Your task to perform on an android device: Search for macbook pro 15 inch on costco, select the first entry, add it to the cart, then select checkout. Image 0: 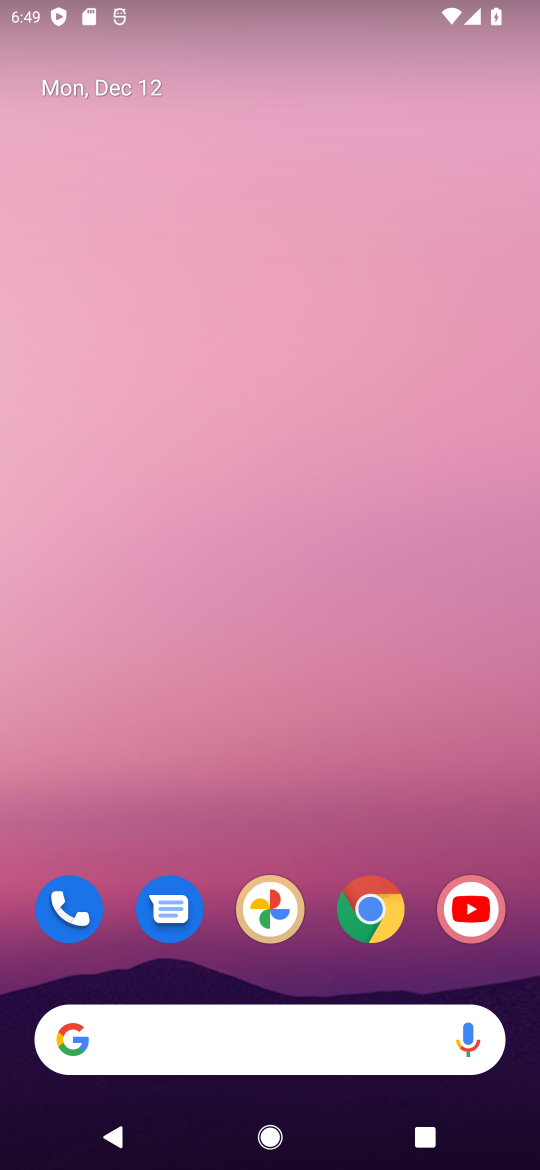
Step 0: click (361, 932)
Your task to perform on an android device: Search for macbook pro 15 inch on costco, select the first entry, add it to the cart, then select checkout. Image 1: 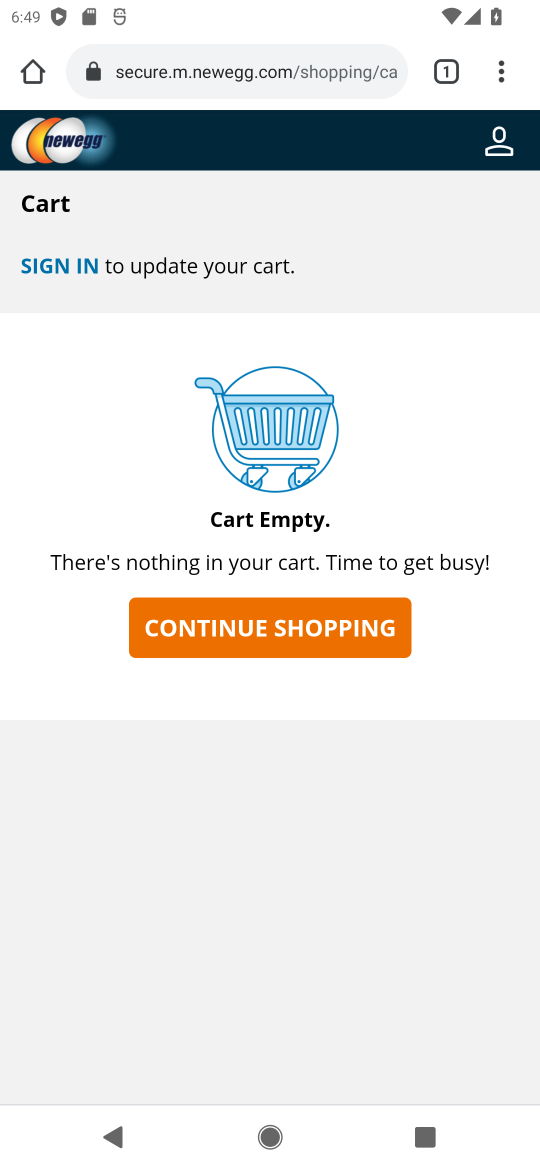
Step 1: click (220, 63)
Your task to perform on an android device: Search for macbook pro 15 inch on costco, select the first entry, add it to the cart, then select checkout. Image 2: 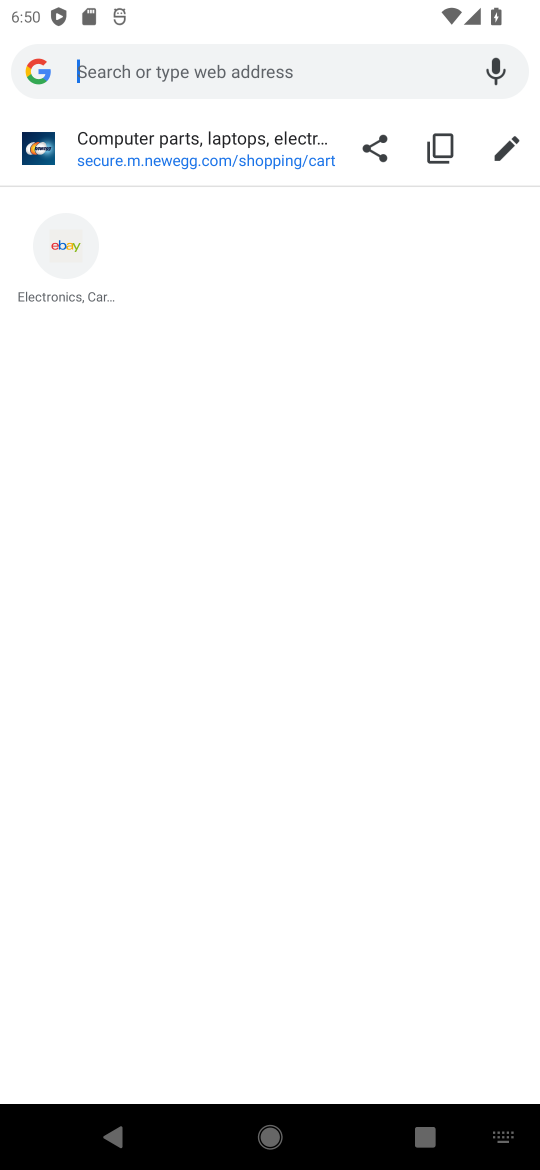
Step 2: type "costco"
Your task to perform on an android device: Search for macbook pro 15 inch on costco, select the first entry, add it to the cart, then select checkout. Image 3: 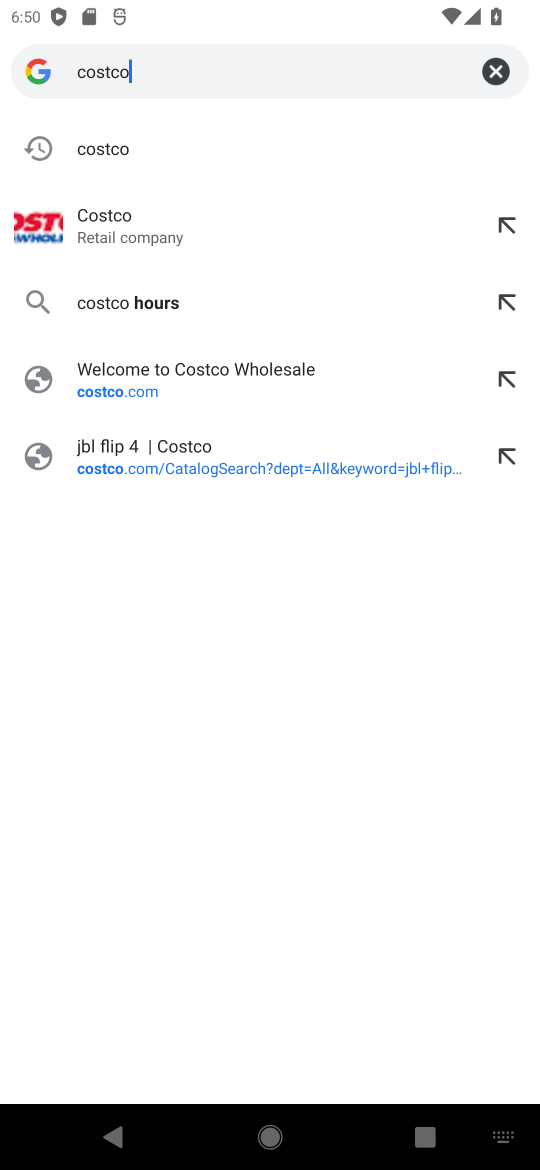
Step 3: click (119, 222)
Your task to perform on an android device: Search for macbook pro 15 inch on costco, select the first entry, add it to the cart, then select checkout. Image 4: 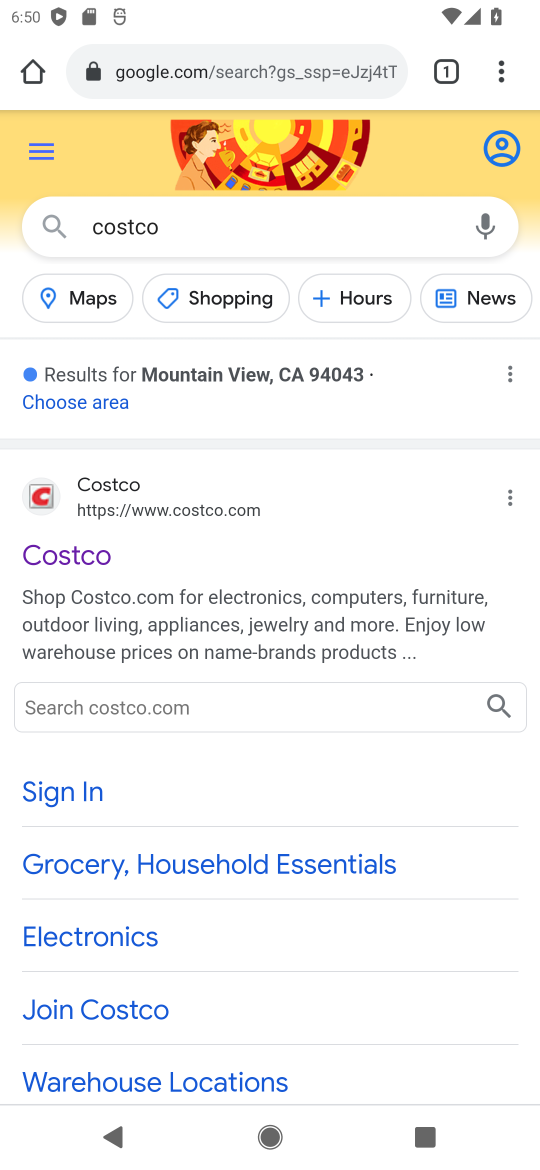
Step 4: click (60, 577)
Your task to perform on an android device: Search for macbook pro 15 inch on costco, select the first entry, add it to the cart, then select checkout. Image 5: 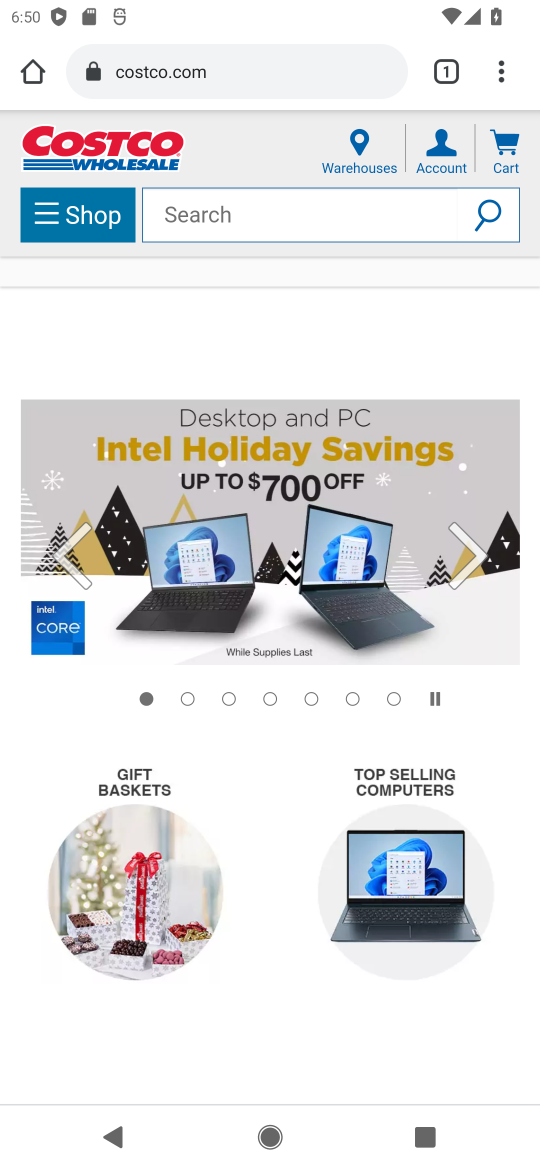
Step 5: click (305, 211)
Your task to perform on an android device: Search for macbook pro 15 inch on costco, select the first entry, add it to the cart, then select checkout. Image 6: 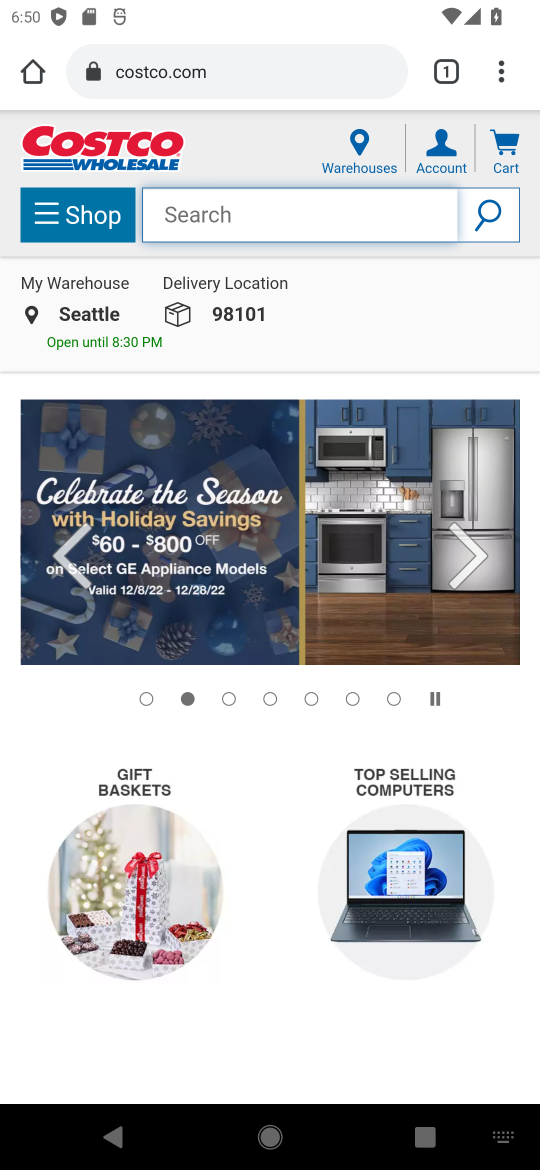
Step 6: type "macbook pro 15 inch"
Your task to perform on an android device: Search for macbook pro 15 inch on costco, select the first entry, add it to the cart, then select checkout. Image 7: 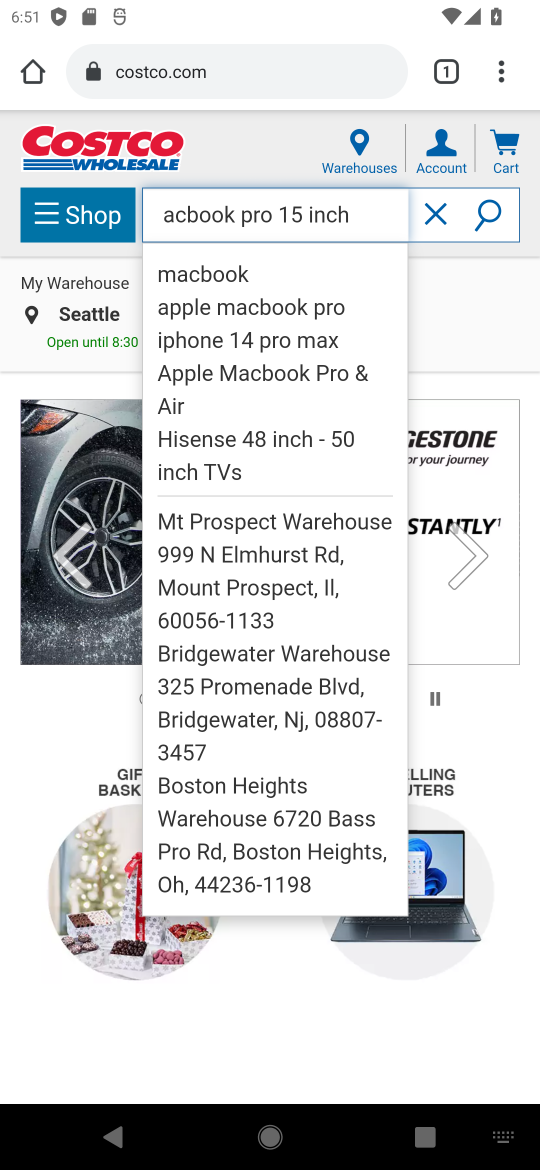
Step 7: click (492, 202)
Your task to perform on an android device: Search for macbook pro 15 inch on costco, select the first entry, add it to the cart, then select checkout. Image 8: 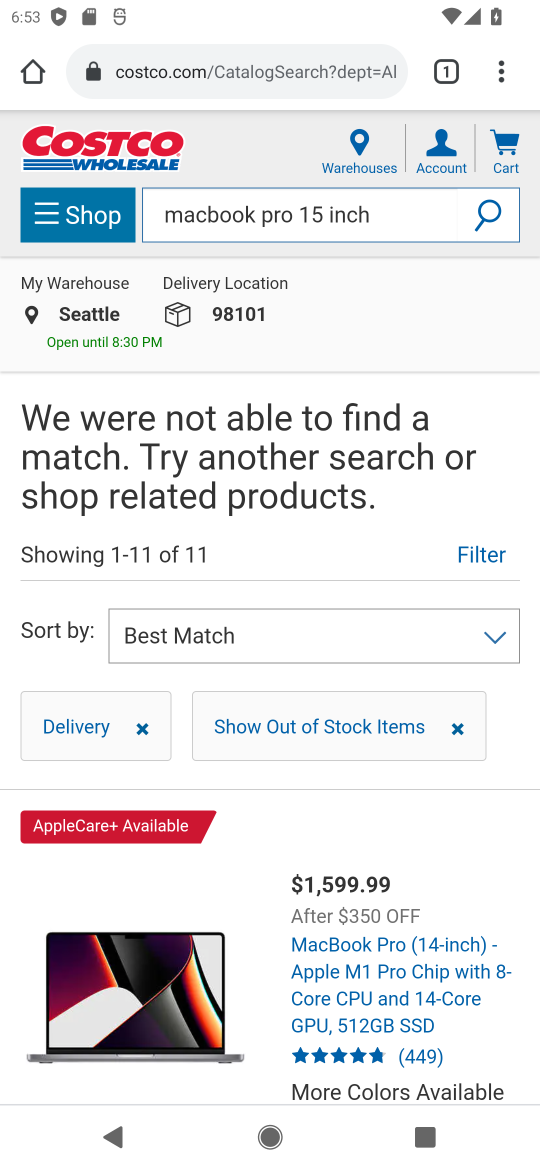
Step 8: task complete